Your task to perform on an android device: Open location settings Image 0: 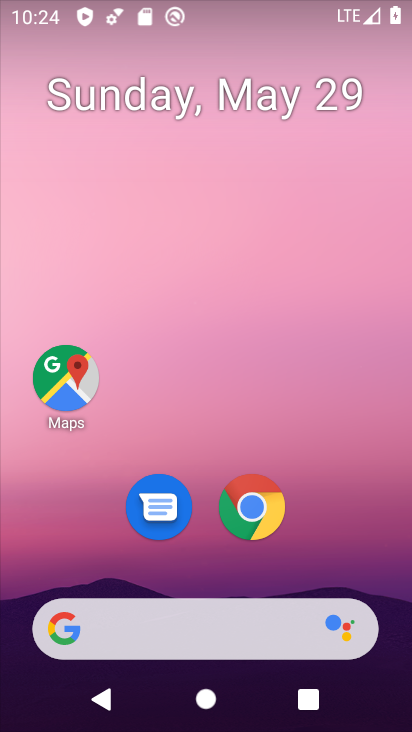
Step 0: drag from (60, 589) to (212, 164)
Your task to perform on an android device: Open location settings Image 1: 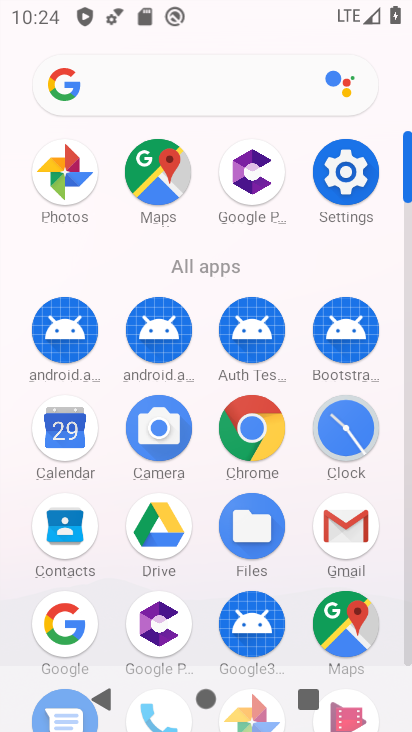
Step 1: drag from (180, 574) to (256, 389)
Your task to perform on an android device: Open location settings Image 2: 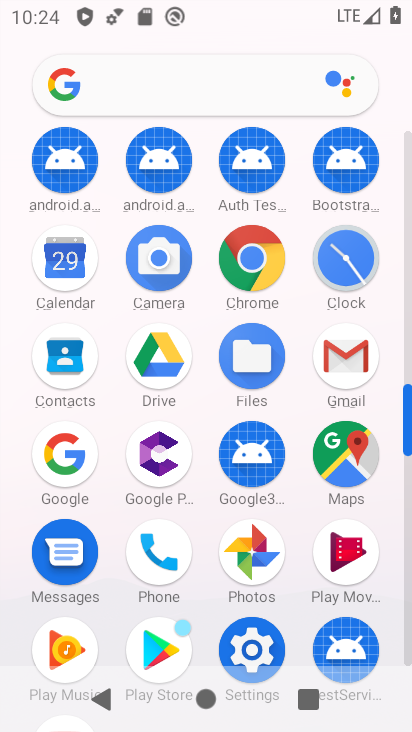
Step 2: click (240, 636)
Your task to perform on an android device: Open location settings Image 3: 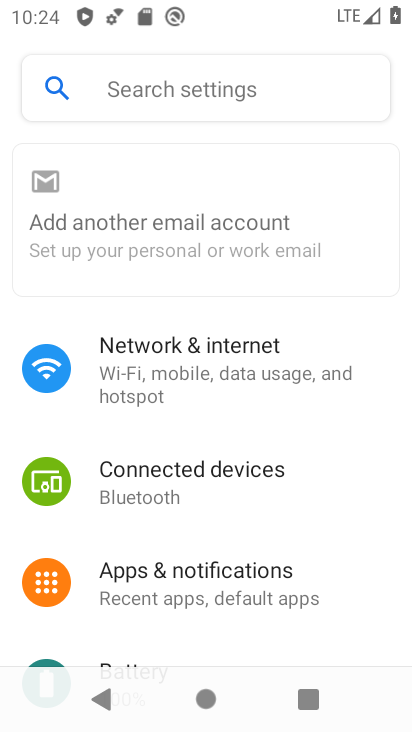
Step 3: drag from (223, 578) to (330, 134)
Your task to perform on an android device: Open location settings Image 4: 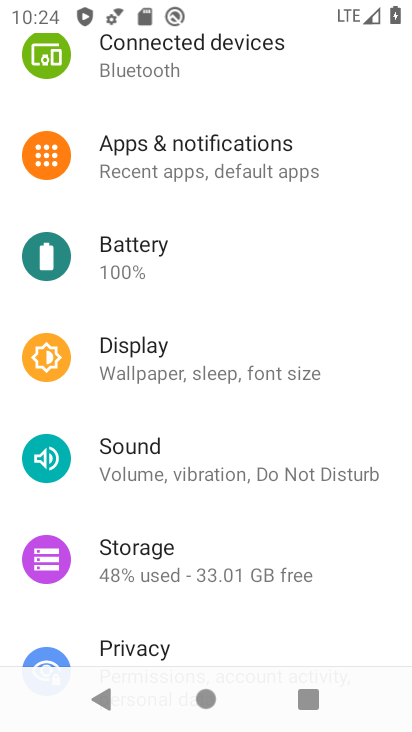
Step 4: drag from (188, 583) to (257, 178)
Your task to perform on an android device: Open location settings Image 5: 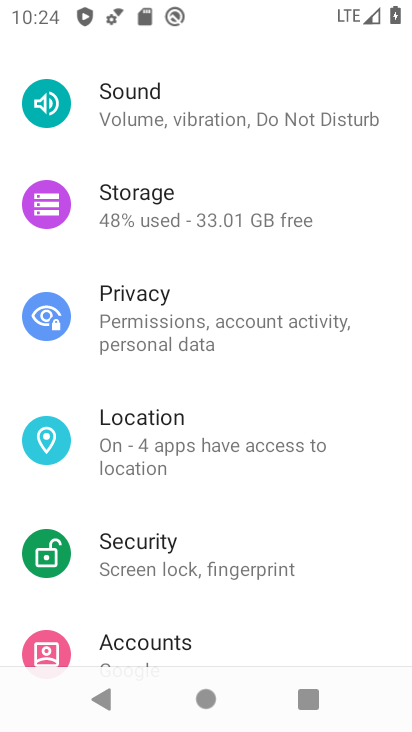
Step 5: drag from (134, 593) to (268, 150)
Your task to perform on an android device: Open location settings Image 6: 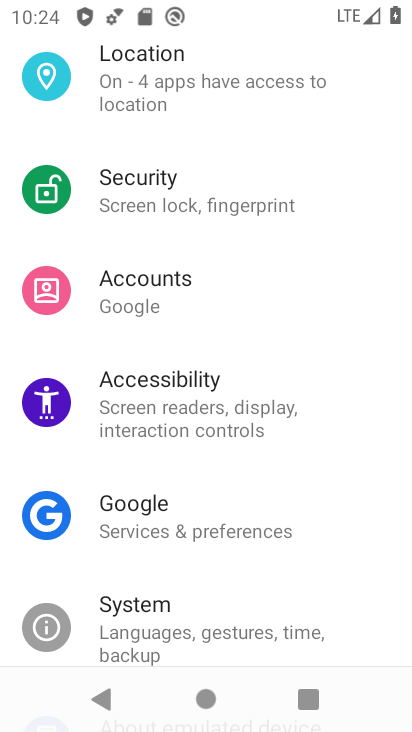
Step 6: drag from (266, 204) to (208, 462)
Your task to perform on an android device: Open location settings Image 7: 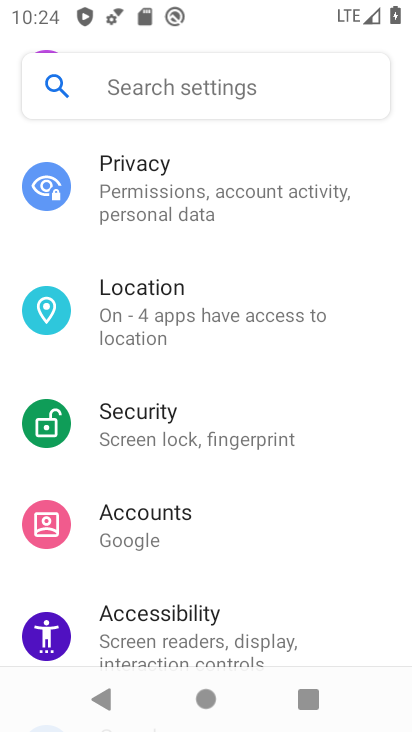
Step 7: click (166, 308)
Your task to perform on an android device: Open location settings Image 8: 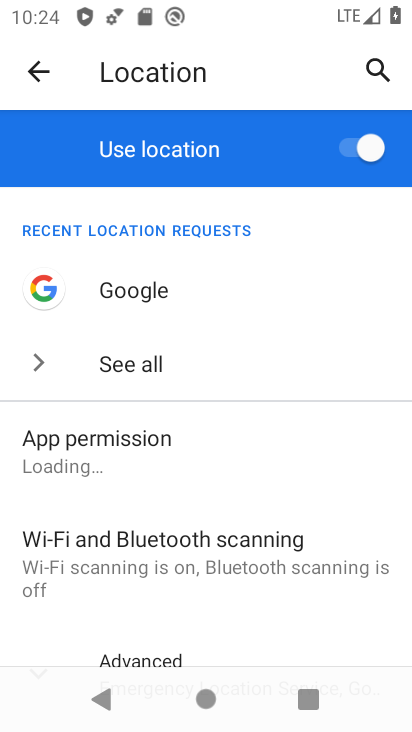
Step 8: task complete